Your task to perform on an android device: Show the shopping cart on walmart. Search for logitech g903 on walmart, select the first entry, and add it to the cart. Image 0: 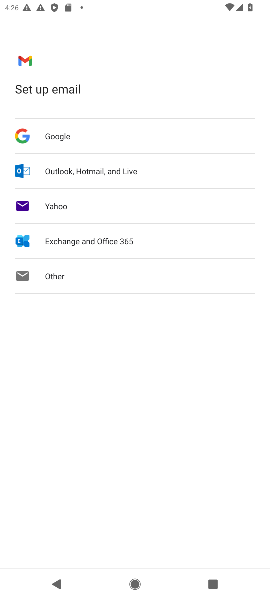
Step 0: press home button
Your task to perform on an android device: Show the shopping cart on walmart. Search for logitech g903 on walmart, select the first entry, and add it to the cart. Image 1: 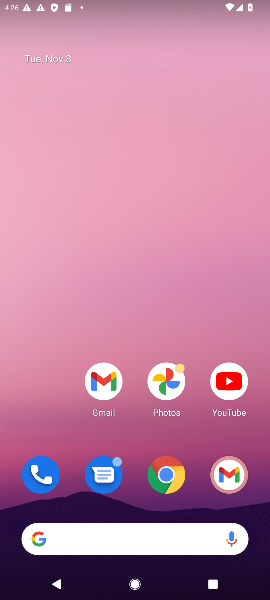
Step 1: drag from (108, 552) to (114, 304)
Your task to perform on an android device: Show the shopping cart on walmart. Search for logitech g903 on walmart, select the first entry, and add it to the cart. Image 2: 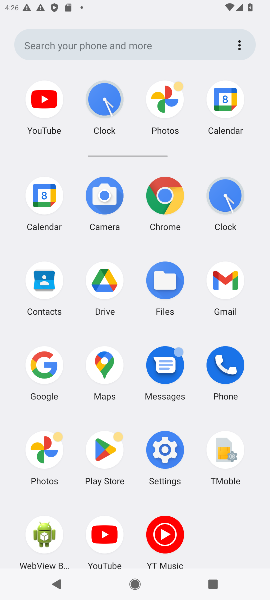
Step 2: click (43, 363)
Your task to perform on an android device: Show the shopping cart on walmart. Search for logitech g903 on walmart, select the first entry, and add it to the cart. Image 3: 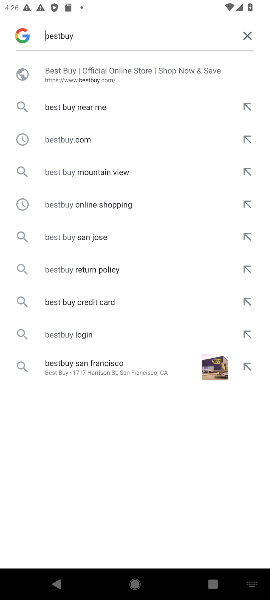
Step 3: click (242, 32)
Your task to perform on an android device: Show the shopping cart on walmart. Search for logitech g903 on walmart, select the first entry, and add it to the cart. Image 4: 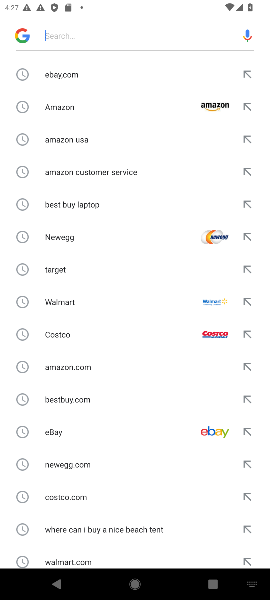
Step 4: click (122, 32)
Your task to perform on an android device: Show the shopping cart on walmart. Search for logitech g903 on walmart, select the first entry, and add it to the cart. Image 5: 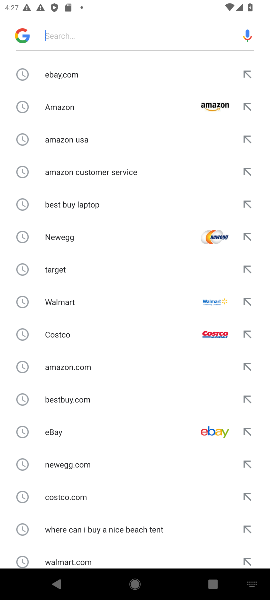
Step 5: type "walmart "
Your task to perform on an android device: Show the shopping cart on walmart. Search for logitech g903 on walmart, select the first entry, and add it to the cart. Image 6: 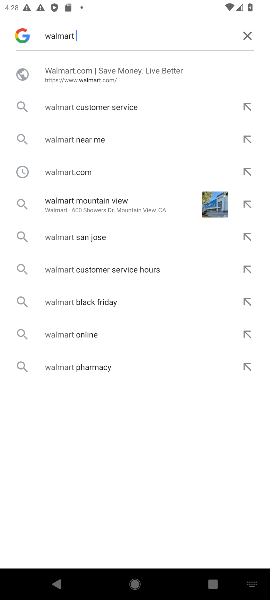
Step 6: click (100, 71)
Your task to perform on an android device: Show the shopping cart on walmart. Search for logitech g903 on walmart, select the first entry, and add it to the cart. Image 7: 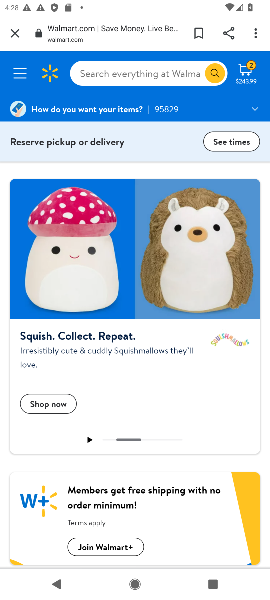
Step 7: click (130, 72)
Your task to perform on an android device: Show the shopping cart on walmart. Search for logitech g903 on walmart, select the first entry, and add it to the cart. Image 8: 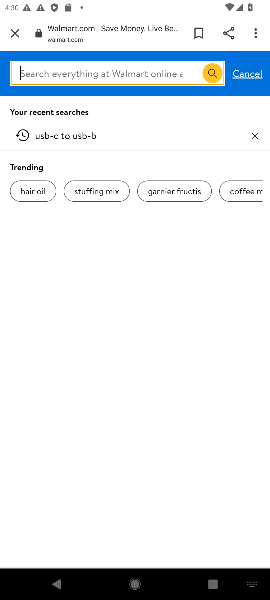
Step 8: click (112, 66)
Your task to perform on an android device: Show the shopping cart on walmart. Search for logitech g903 on walmart, select the first entry, and add it to the cart. Image 9: 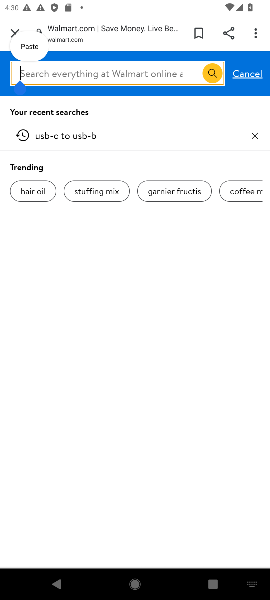
Step 9: click (112, 66)
Your task to perform on an android device: Show the shopping cart on walmart. Search for logitech g903 on walmart, select the first entry, and add it to the cart. Image 10: 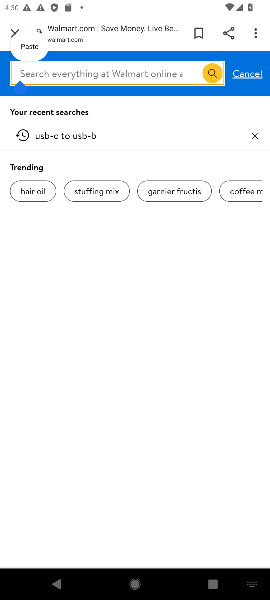
Step 10: click (112, 66)
Your task to perform on an android device: Show the shopping cart on walmart. Search for logitech g903 on walmart, select the first entry, and add it to the cart. Image 11: 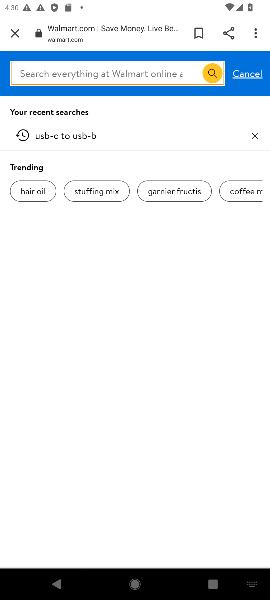
Step 11: type "logitech g90 "
Your task to perform on an android device: Show the shopping cart on walmart. Search for logitech g903 on walmart, select the first entry, and add it to the cart. Image 12: 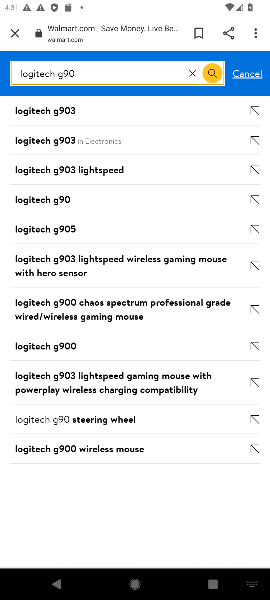
Step 12: click (73, 107)
Your task to perform on an android device: Show the shopping cart on walmart. Search for logitech g903 on walmart, select the first entry, and add it to the cart. Image 13: 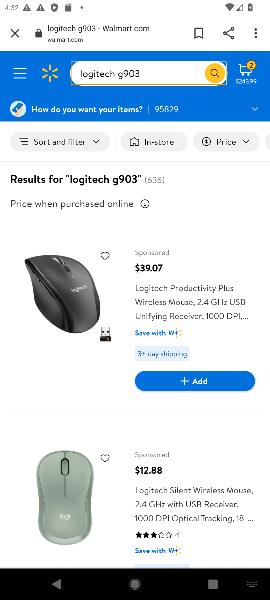
Step 13: click (168, 386)
Your task to perform on an android device: Show the shopping cart on walmart. Search for logitech g903 on walmart, select the first entry, and add it to the cart. Image 14: 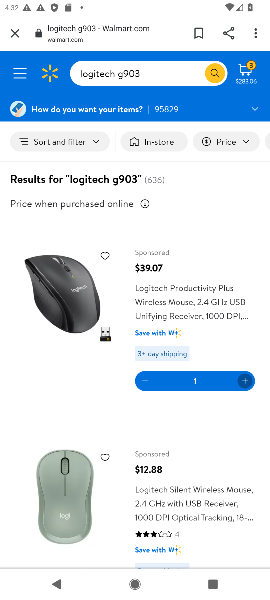
Step 14: task complete